Your task to perform on an android device: choose inbox layout in the gmail app Image 0: 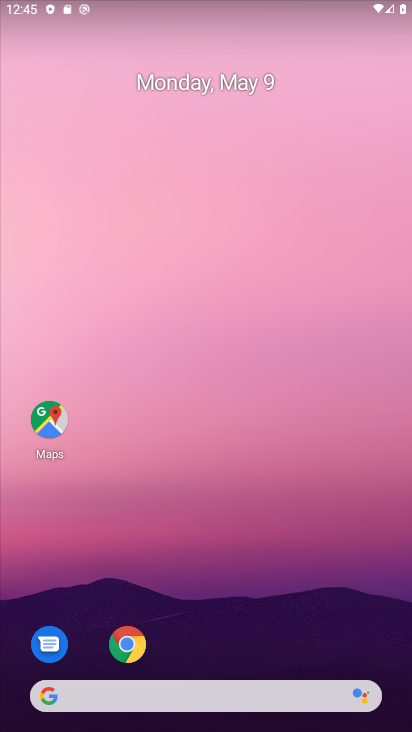
Step 0: drag from (245, 576) to (194, 243)
Your task to perform on an android device: choose inbox layout in the gmail app Image 1: 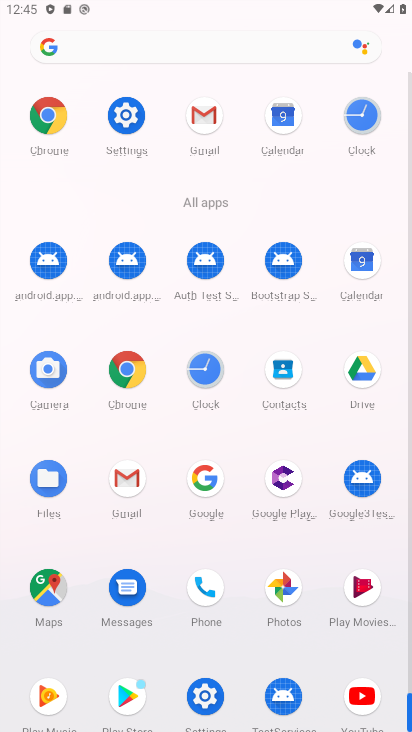
Step 1: click (202, 148)
Your task to perform on an android device: choose inbox layout in the gmail app Image 2: 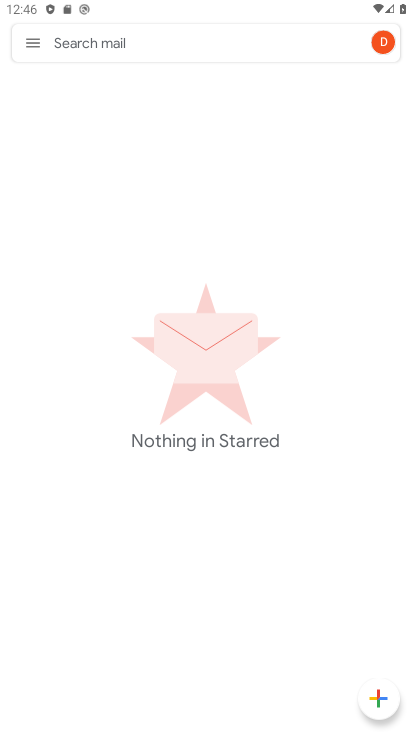
Step 2: click (34, 41)
Your task to perform on an android device: choose inbox layout in the gmail app Image 3: 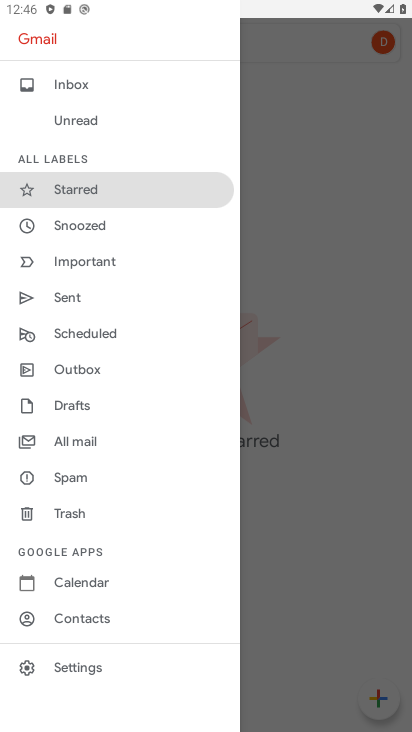
Step 3: click (69, 675)
Your task to perform on an android device: choose inbox layout in the gmail app Image 4: 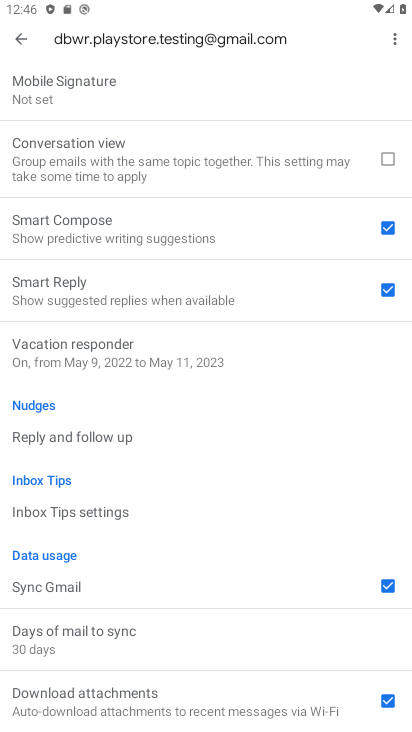
Step 4: drag from (126, 147) to (140, 726)
Your task to perform on an android device: choose inbox layout in the gmail app Image 5: 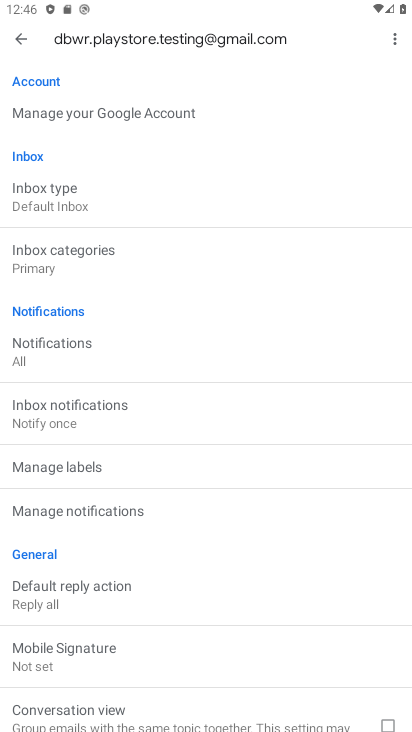
Step 5: drag from (181, 264) to (181, 680)
Your task to perform on an android device: choose inbox layout in the gmail app Image 6: 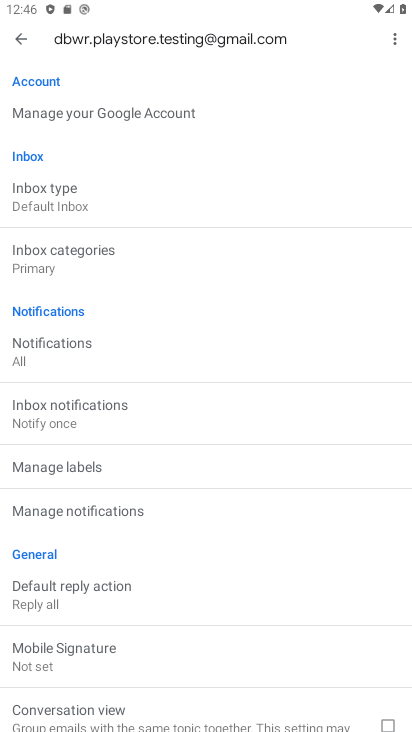
Step 6: click (83, 209)
Your task to perform on an android device: choose inbox layout in the gmail app Image 7: 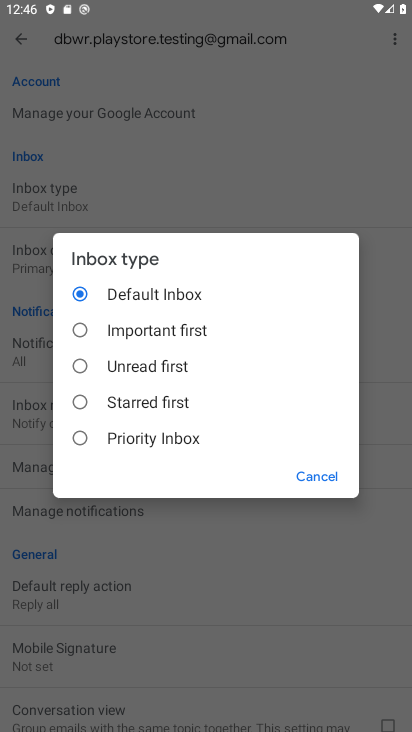
Step 7: click (83, 332)
Your task to perform on an android device: choose inbox layout in the gmail app Image 8: 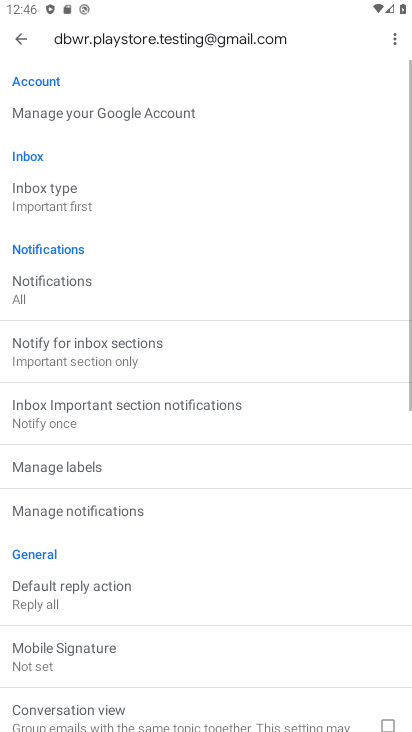
Step 8: task complete